Your task to perform on an android device: Open calendar and show me the first week of next month Image 0: 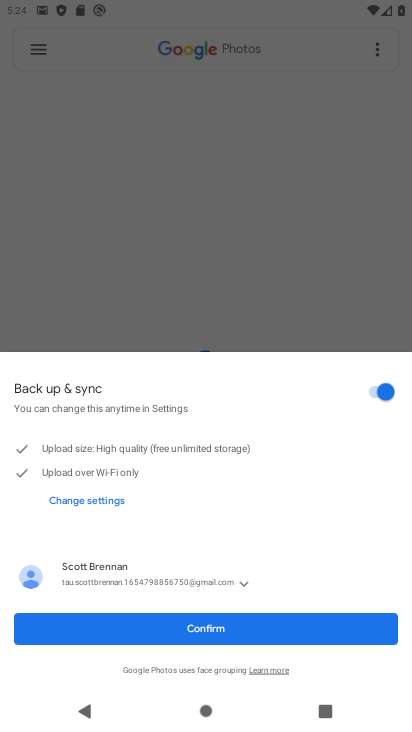
Step 0: press home button
Your task to perform on an android device: Open calendar and show me the first week of next month Image 1: 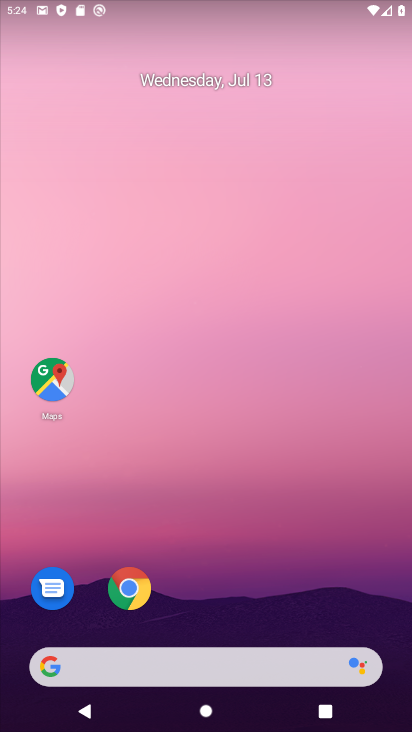
Step 1: drag from (187, 373) to (187, 83)
Your task to perform on an android device: Open calendar and show me the first week of next month Image 2: 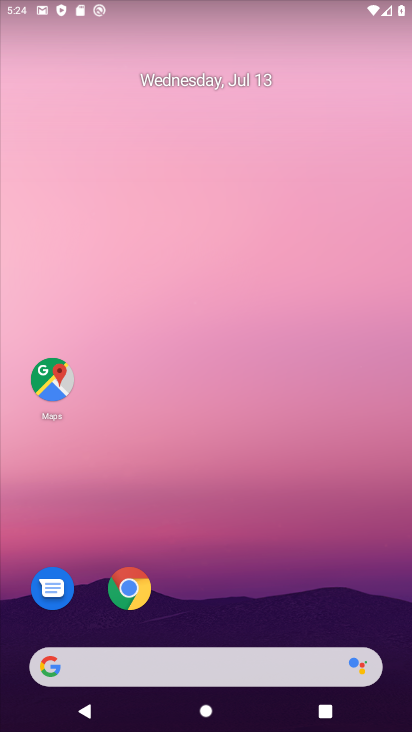
Step 2: drag from (187, 488) to (170, 178)
Your task to perform on an android device: Open calendar and show me the first week of next month Image 3: 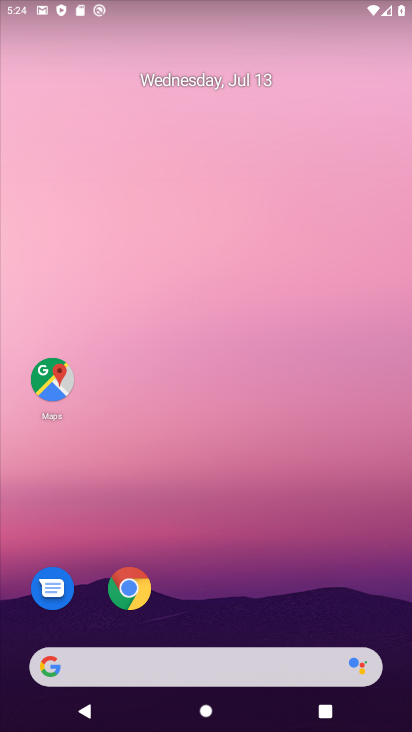
Step 3: drag from (189, 385) to (176, 114)
Your task to perform on an android device: Open calendar and show me the first week of next month Image 4: 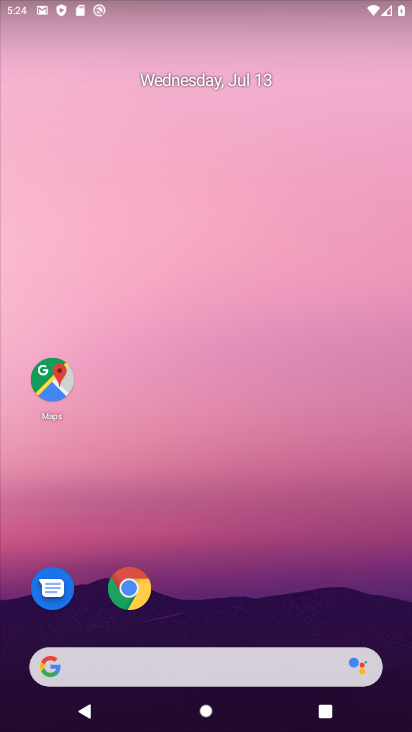
Step 4: click (167, 97)
Your task to perform on an android device: Open calendar and show me the first week of next month Image 5: 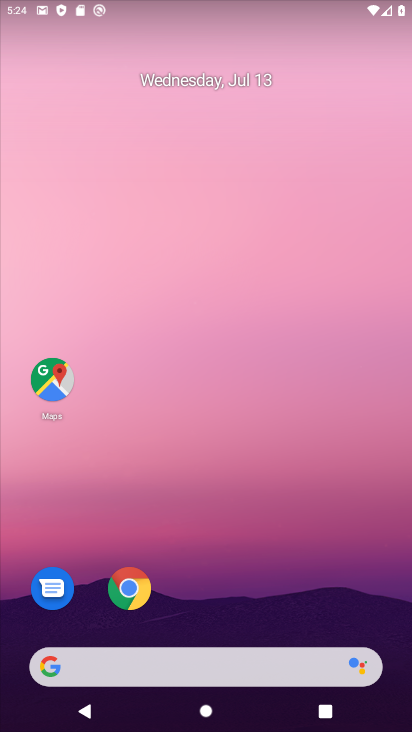
Step 5: click (236, 571)
Your task to perform on an android device: Open calendar and show me the first week of next month Image 6: 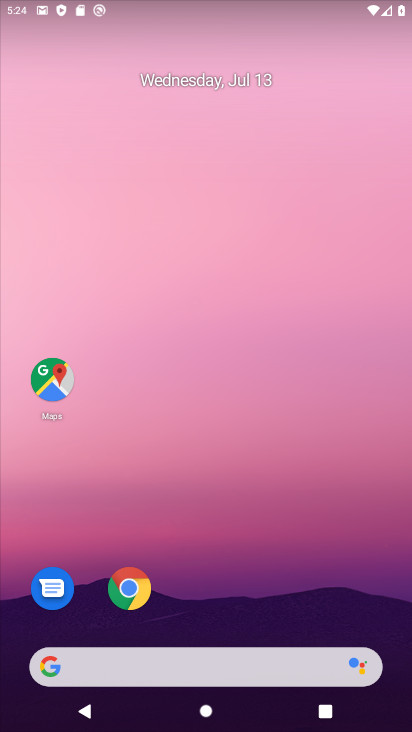
Step 6: drag from (195, 421) to (176, 14)
Your task to perform on an android device: Open calendar and show me the first week of next month Image 7: 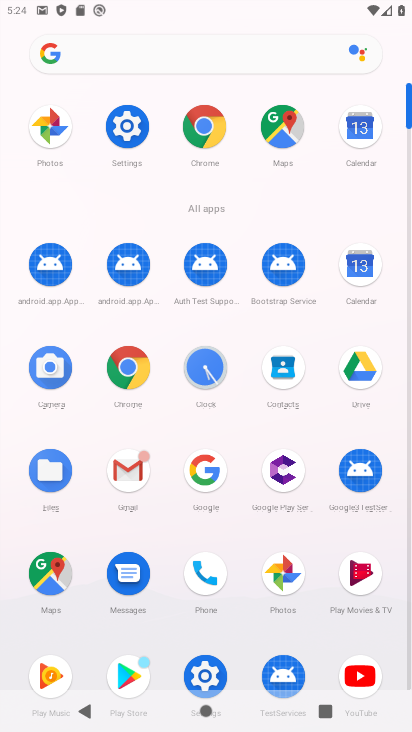
Step 7: click (202, 674)
Your task to perform on an android device: Open calendar and show me the first week of next month Image 8: 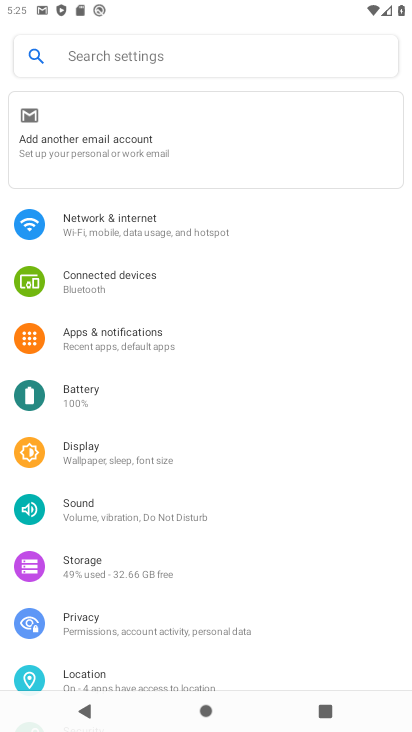
Step 8: drag from (116, 523) to (127, 364)
Your task to perform on an android device: Open calendar and show me the first week of next month Image 9: 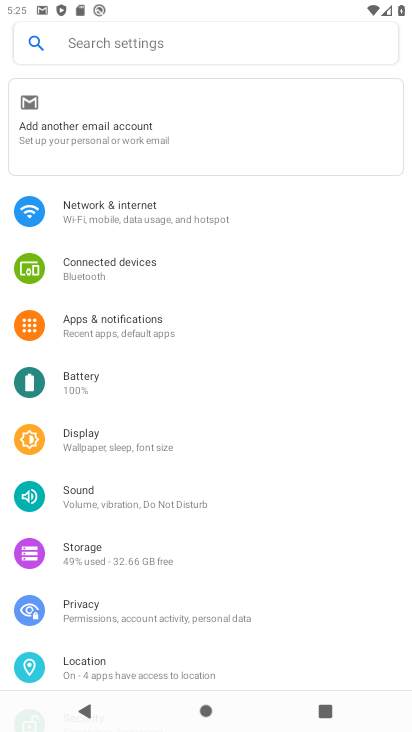
Step 9: press back button
Your task to perform on an android device: Open calendar and show me the first week of next month Image 10: 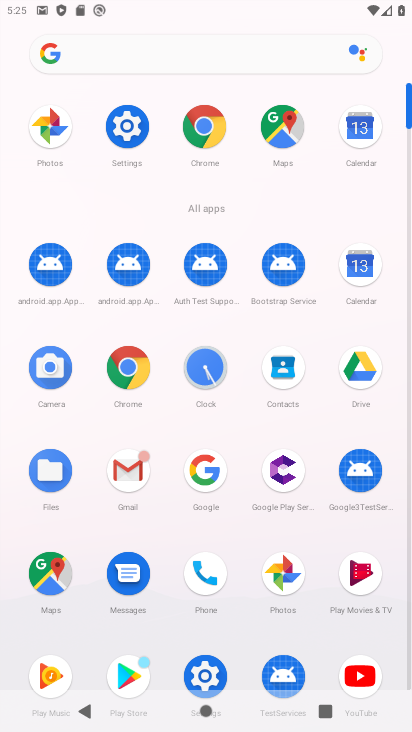
Step 10: click (356, 279)
Your task to perform on an android device: Open calendar and show me the first week of next month Image 11: 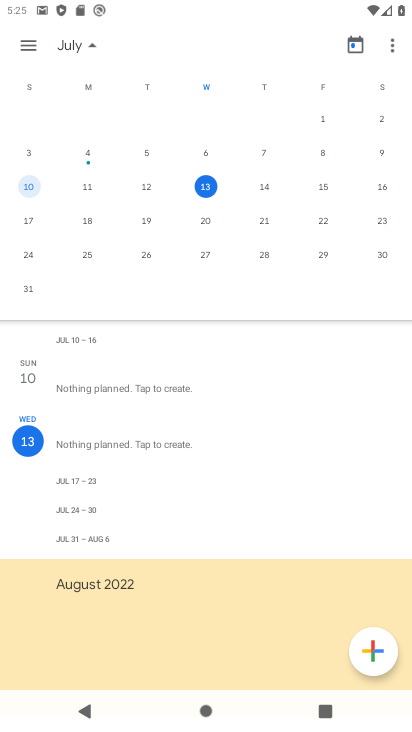
Step 11: task complete